Your task to perform on an android device: toggle translation in the chrome app Image 0: 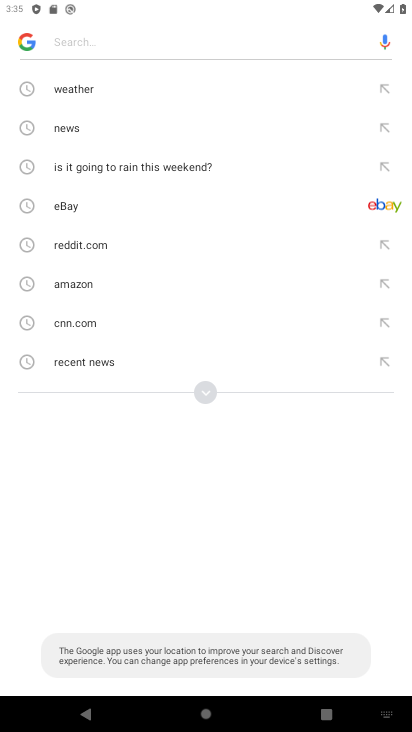
Step 0: press home button
Your task to perform on an android device: toggle translation in the chrome app Image 1: 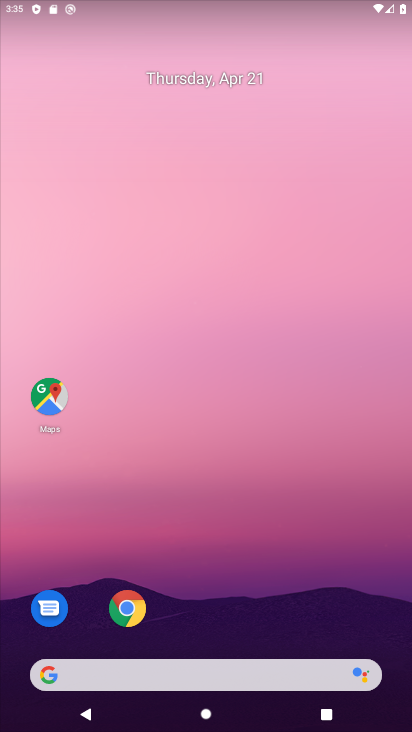
Step 1: click (125, 618)
Your task to perform on an android device: toggle translation in the chrome app Image 2: 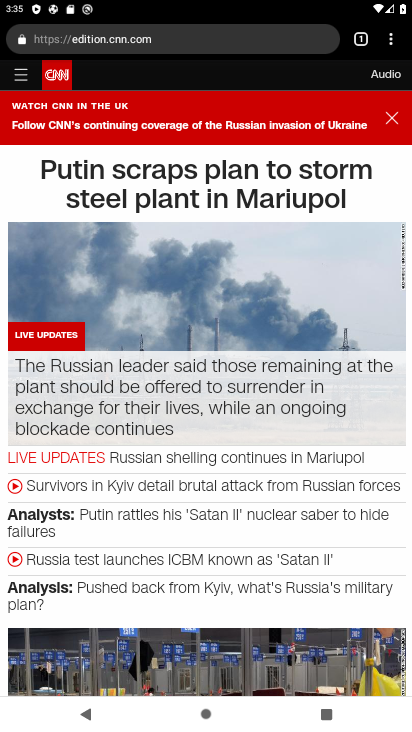
Step 2: drag from (391, 116) to (394, 32)
Your task to perform on an android device: toggle translation in the chrome app Image 3: 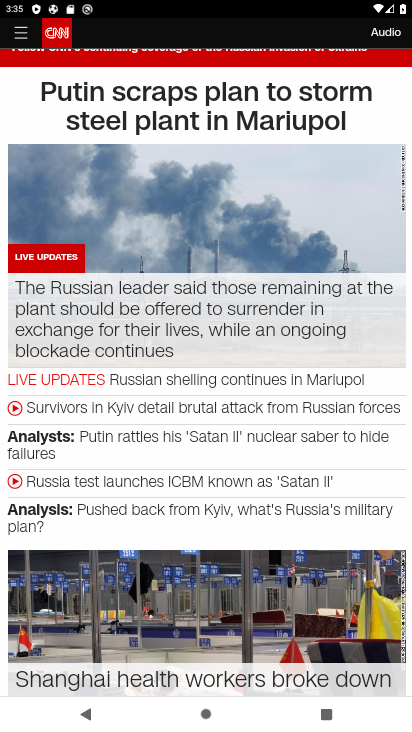
Step 3: drag from (355, 200) to (341, 359)
Your task to perform on an android device: toggle translation in the chrome app Image 4: 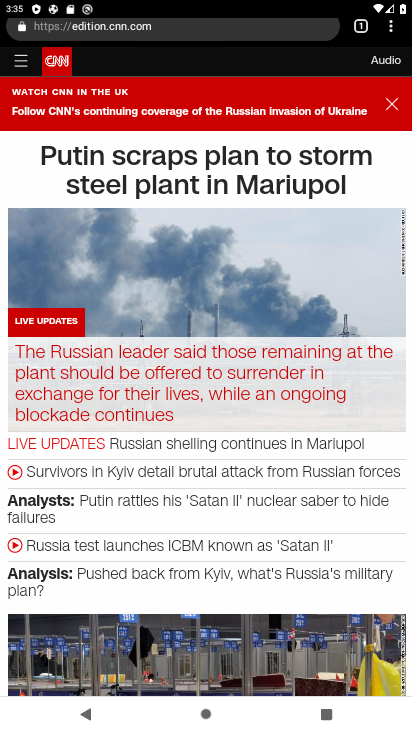
Step 4: drag from (391, 37) to (271, 476)
Your task to perform on an android device: toggle translation in the chrome app Image 5: 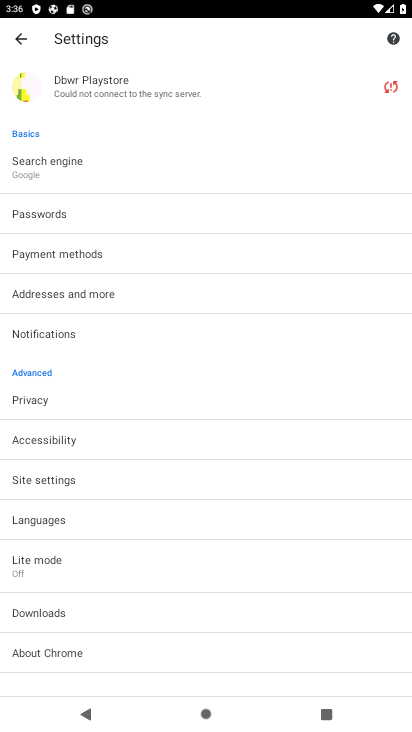
Step 5: click (70, 526)
Your task to perform on an android device: toggle translation in the chrome app Image 6: 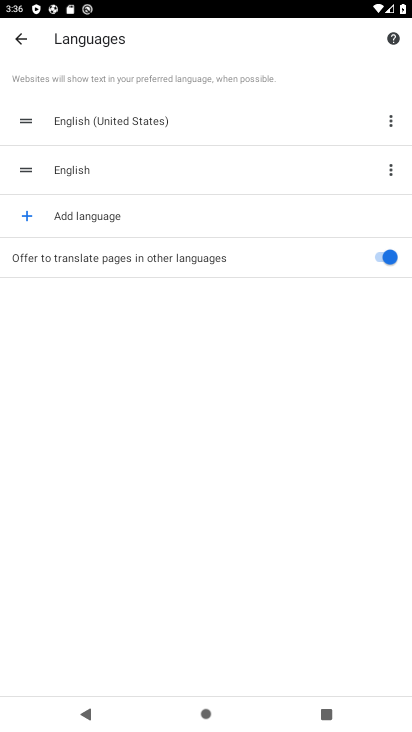
Step 6: click (384, 251)
Your task to perform on an android device: toggle translation in the chrome app Image 7: 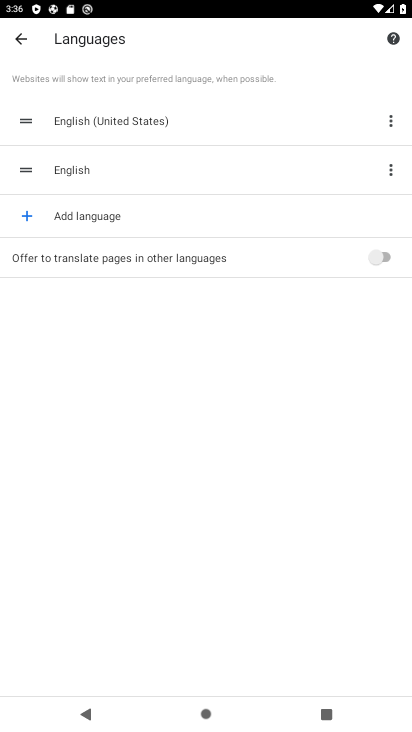
Step 7: task complete